Your task to perform on an android device: Go to accessibility settings Image 0: 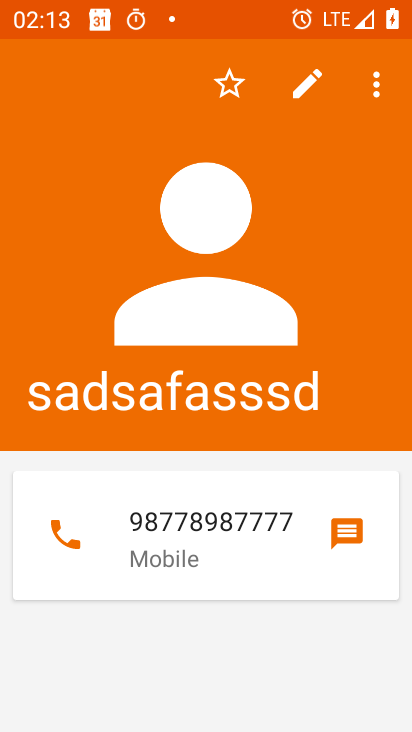
Step 0: press home button
Your task to perform on an android device: Go to accessibility settings Image 1: 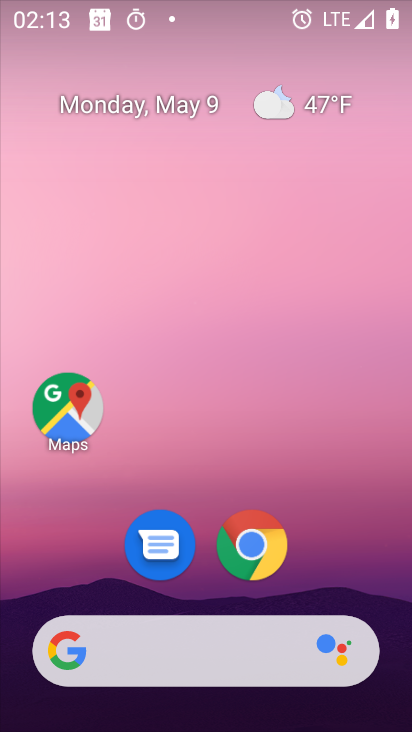
Step 1: drag from (265, 602) to (248, 7)
Your task to perform on an android device: Go to accessibility settings Image 2: 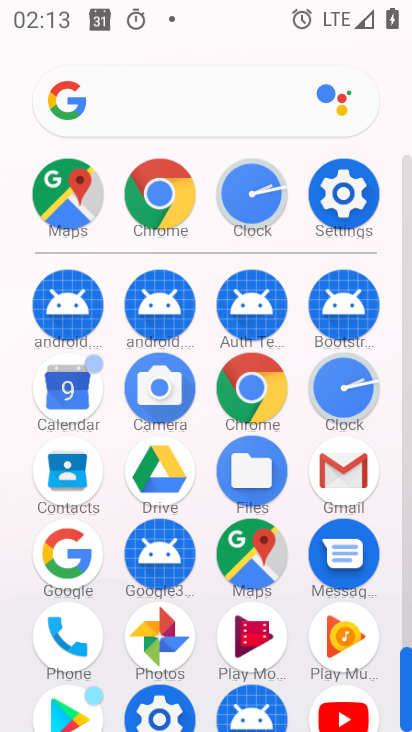
Step 2: click (341, 202)
Your task to perform on an android device: Go to accessibility settings Image 3: 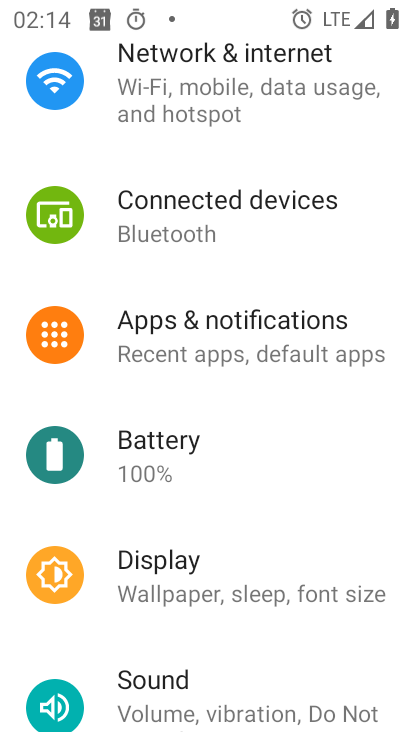
Step 3: drag from (264, 212) to (210, 677)
Your task to perform on an android device: Go to accessibility settings Image 4: 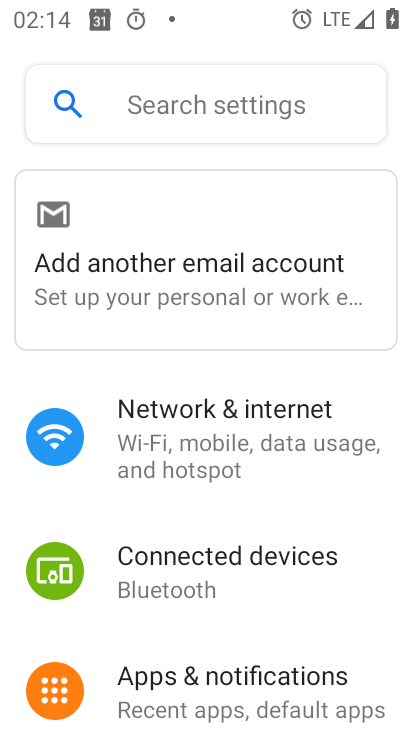
Step 4: drag from (246, 690) to (293, 24)
Your task to perform on an android device: Go to accessibility settings Image 5: 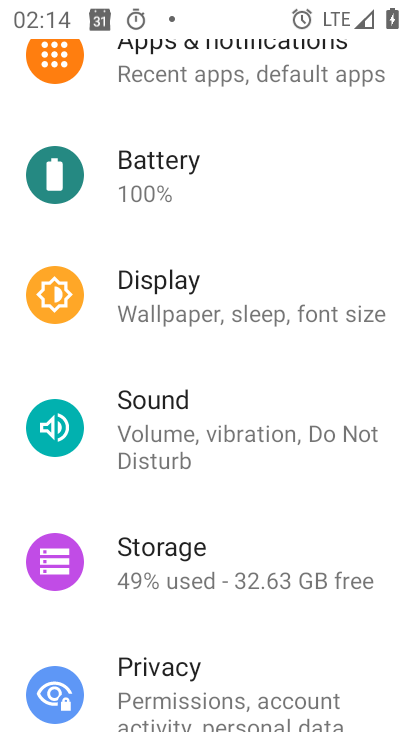
Step 5: drag from (283, 674) to (285, 80)
Your task to perform on an android device: Go to accessibility settings Image 6: 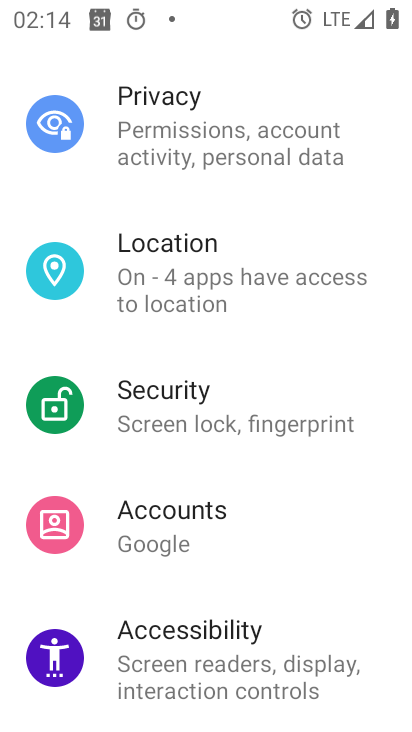
Step 6: drag from (267, 663) to (303, 176)
Your task to perform on an android device: Go to accessibility settings Image 7: 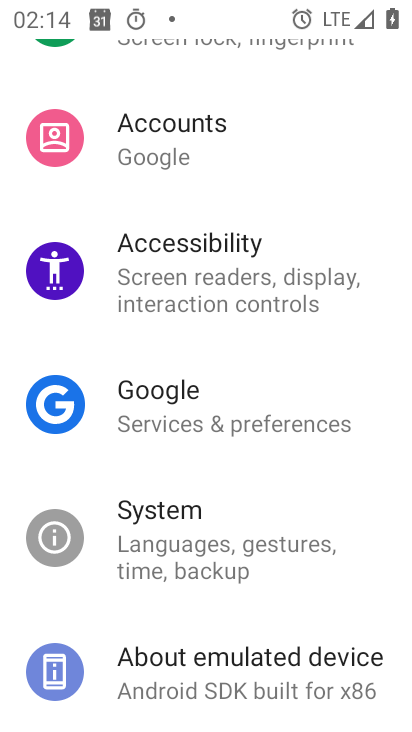
Step 7: click (261, 255)
Your task to perform on an android device: Go to accessibility settings Image 8: 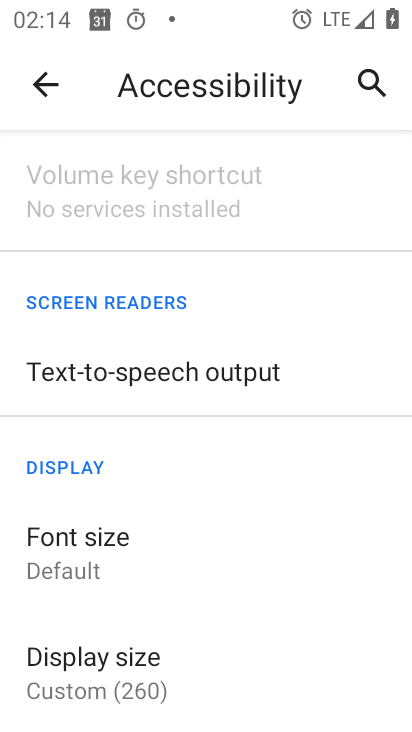
Step 8: task complete